Your task to perform on an android device: Go to Google maps Image 0: 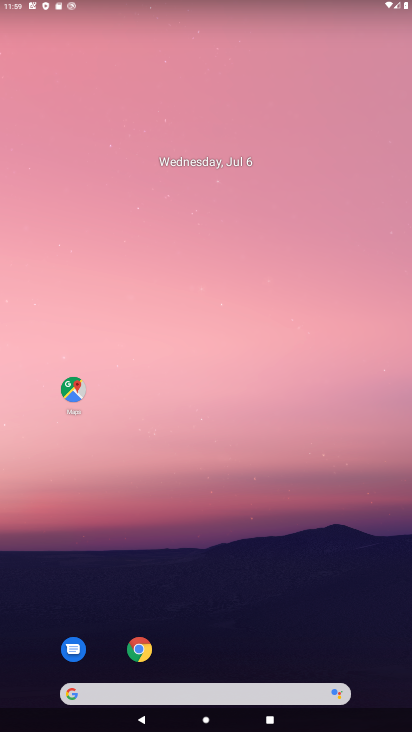
Step 0: drag from (328, 571) to (127, 136)
Your task to perform on an android device: Go to Google maps Image 1: 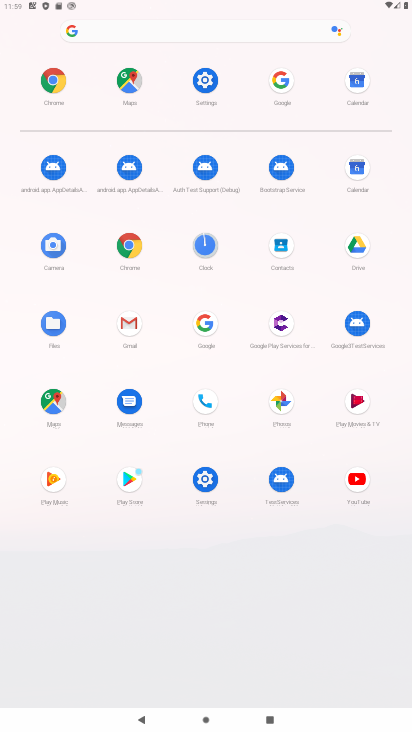
Step 1: click (52, 399)
Your task to perform on an android device: Go to Google maps Image 2: 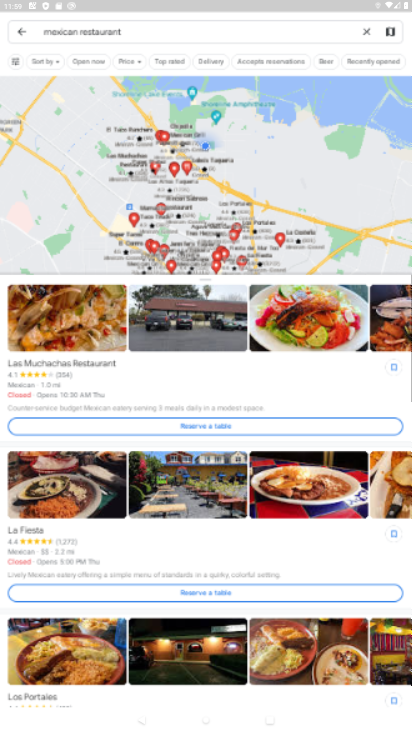
Step 2: click (368, 37)
Your task to perform on an android device: Go to Google maps Image 3: 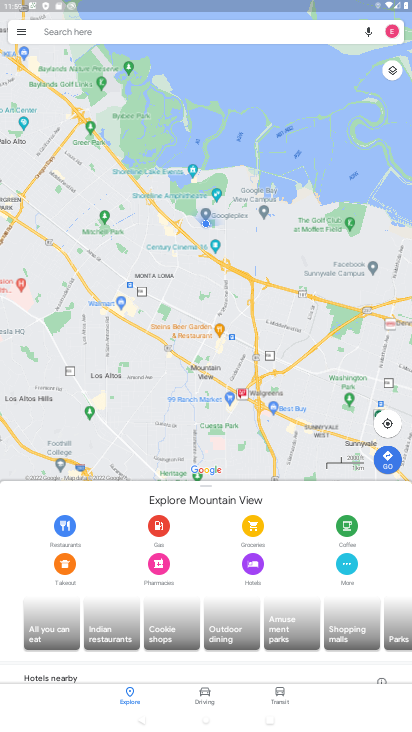
Step 3: task complete